Your task to perform on an android device: Go to Google Image 0: 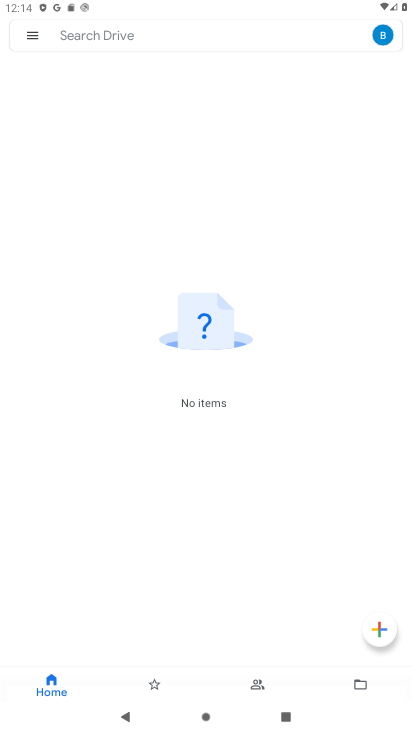
Step 0: press home button
Your task to perform on an android device: Go to Google Image 1: 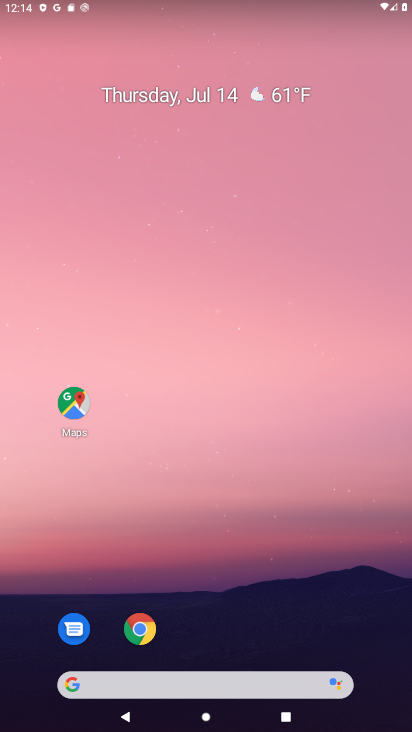
Step 1: click (147, 679)
Your task to perform on an android device: Go to Google Image 2: 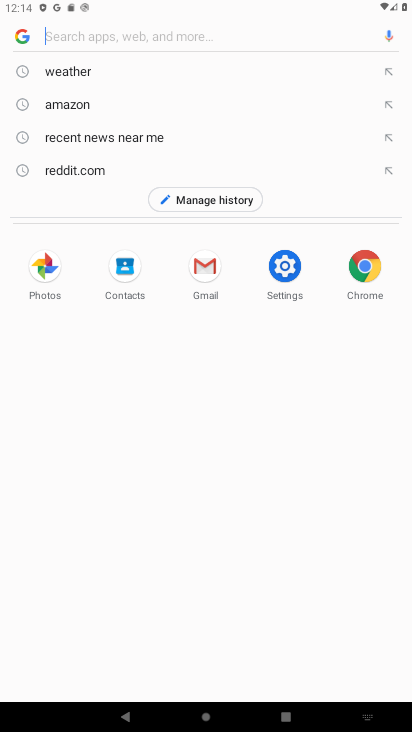
Step 2: task complete